Your task to perform on an android device: change the clock display to show seconds Image 0: 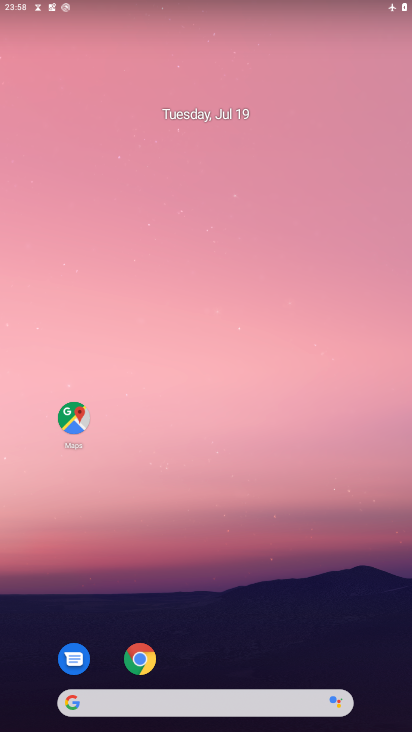
Step 0: drag from (393, 184) to (398, 453)
Your task to perform on an android device: change the clock display to show seconds Image 1: 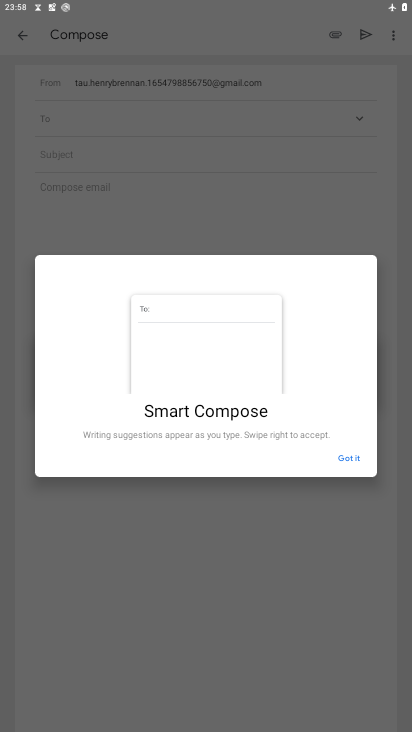
Step 1: drag from (366, 7) to (367, 288)
Your task to perform on an android device: change the clock display to show seconds Image 2: 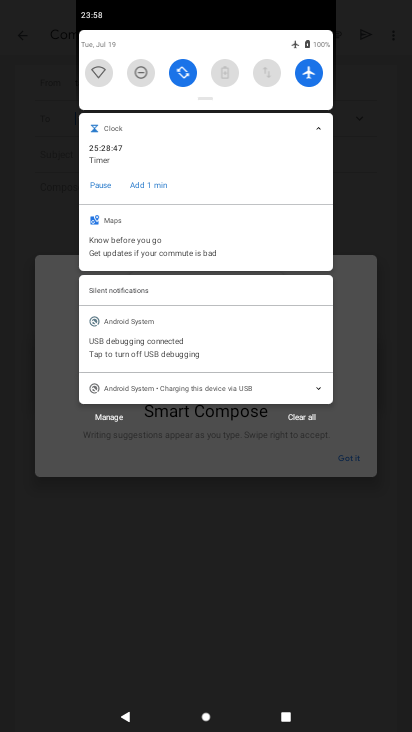
Step 2: click (306, 72)
Your task to perform on an android device: change the clock display to show seconds Image 3: 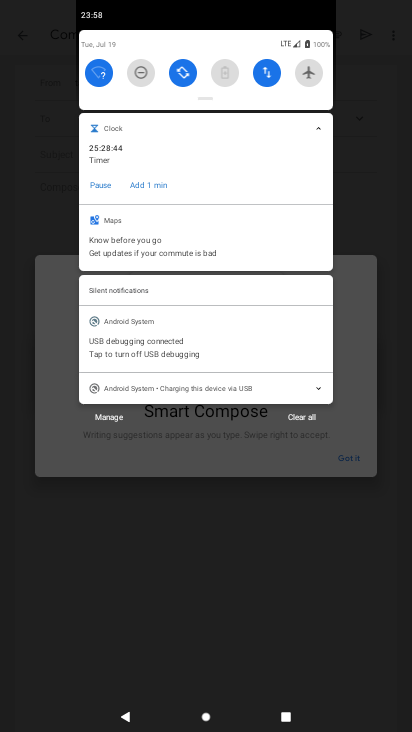
Step 3: click (342, 539)
Your task to perform on an android device: change the clock display to show seconds Image 4: 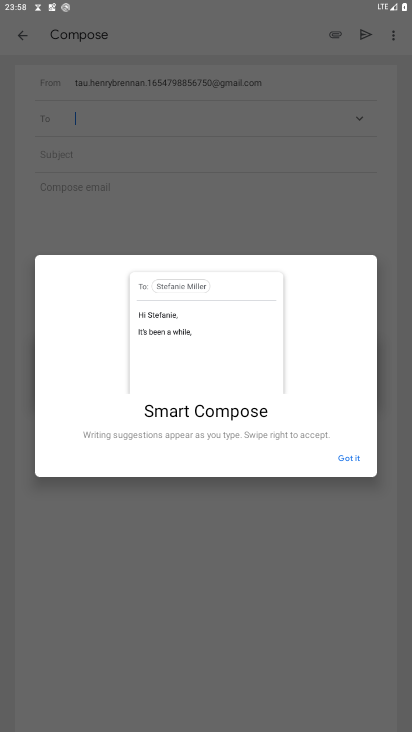
Step 4: press home button
Your task to perform on an android device: change the clock display to show seconds Image 5: 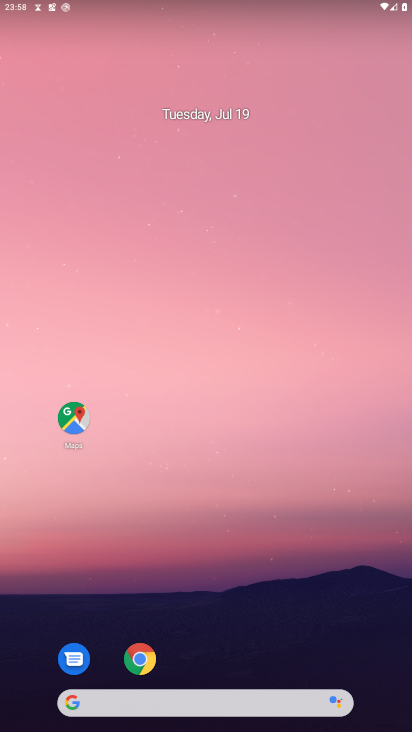
Step 5: drag from (345, 485) to (313, 97)
Your task to perform on an android device: change the clock display to show seconds Image 6: 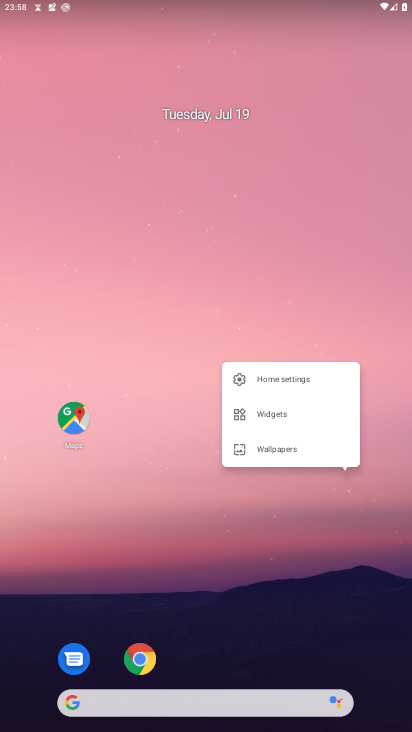
Step 6: drag from (353, 623) to (338, 280)
Your task to perform on an android device: change the clock display to show seconds Image 7: 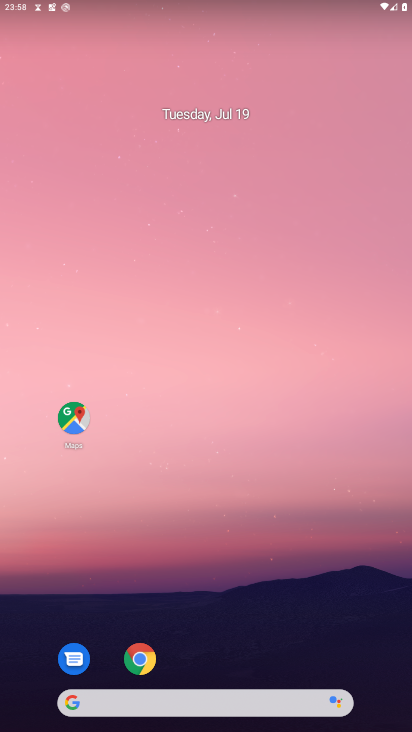
Step 7: drag from (321, 618) to (335, 107)
Your task to perform on an android device: change the clock display to show seconds Image 8: 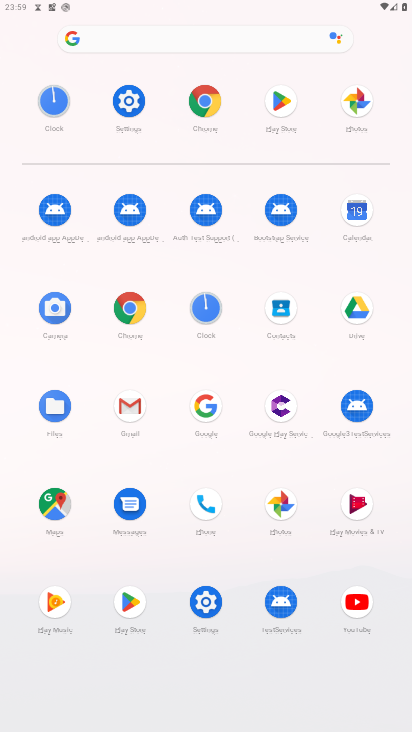
Step 8: click (217, 300)
Your task to perform on an android device: change the clock display to show seconds Image 9: 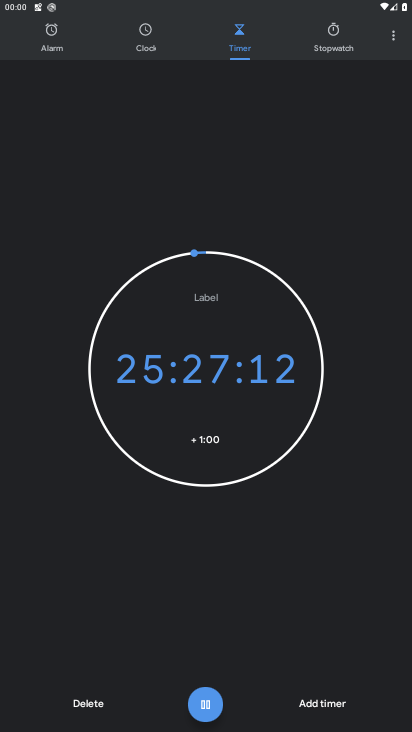
Step 9: click (396, 40)
Your task to perform on an android device: change the clock display to show seconds Image 10: 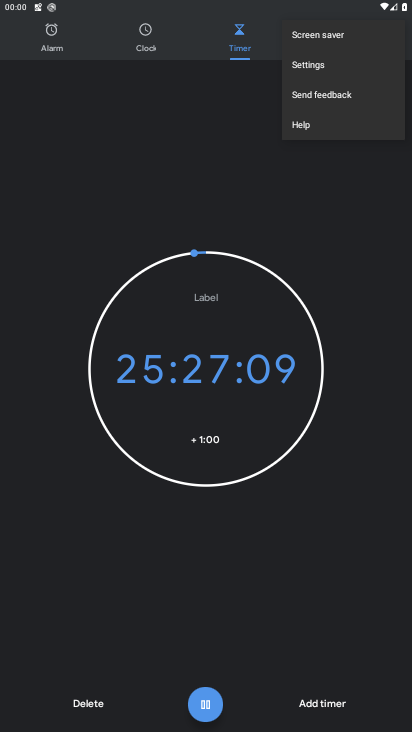
Step 10: click (325, 75)
Your task to perform on an android device: change the clock display to show seconds Image 11: 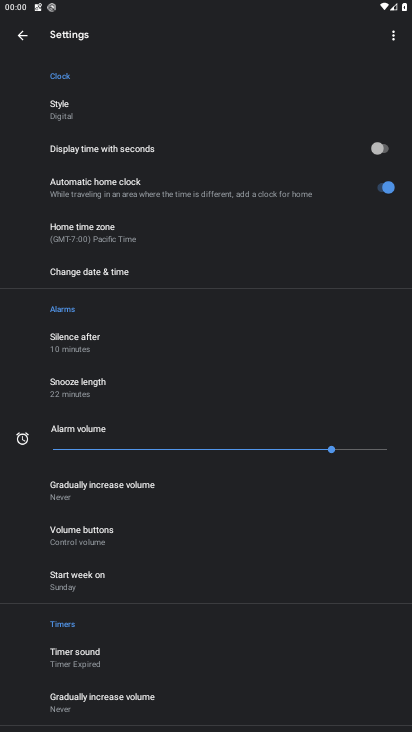
Step 11: click (121, 145)
Your task to perform on an android device: change the clock display to show seconds Image 12: 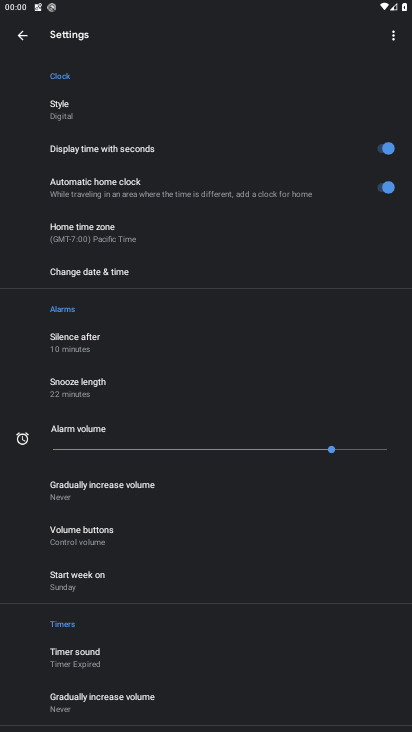
Step 12: task complete